Your task to perform on an android device: Search for lenovo thinkpad on costco.com, select the first entry, and add it to the cart. Image 0: 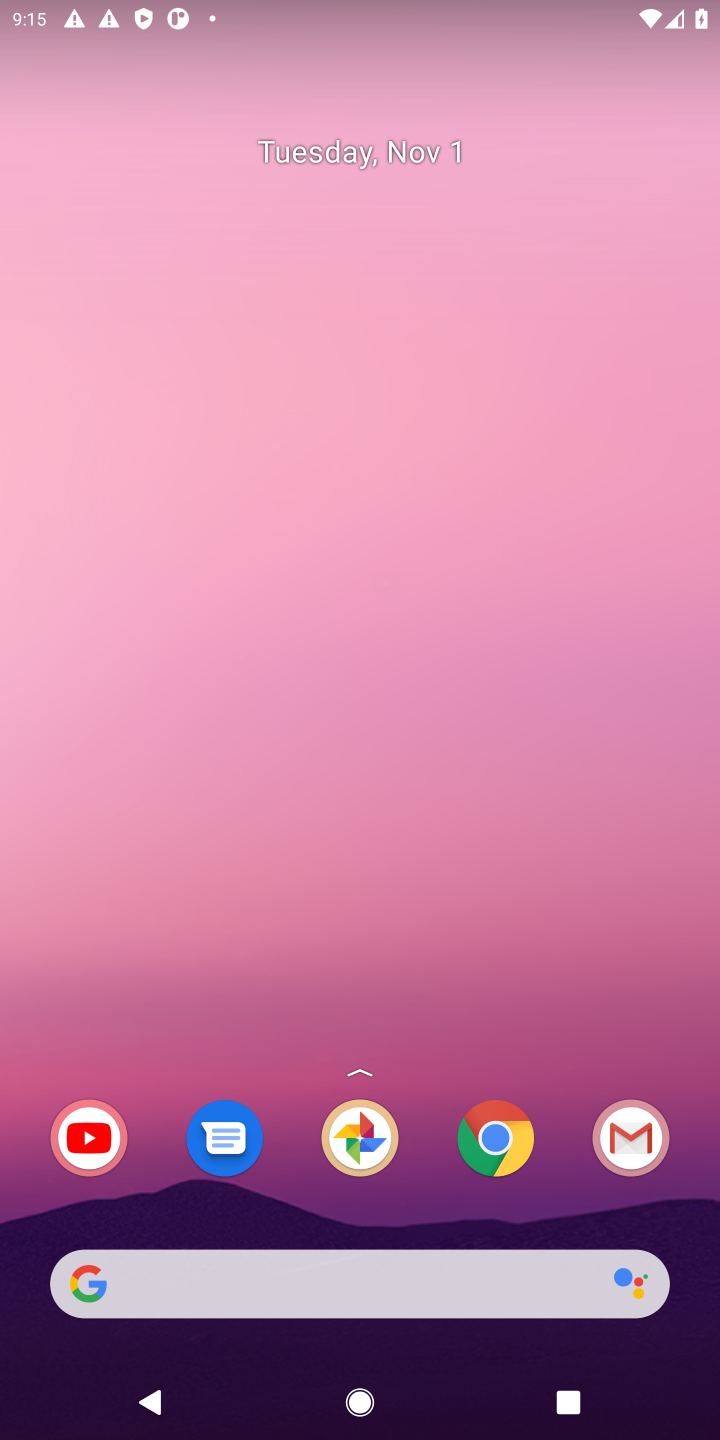
Step 0: click (497, 1140)
Your task to perform on an android device: Search for lenovo thinkpad on costco.com, select the first entry, and add it to the cart. Image 1: 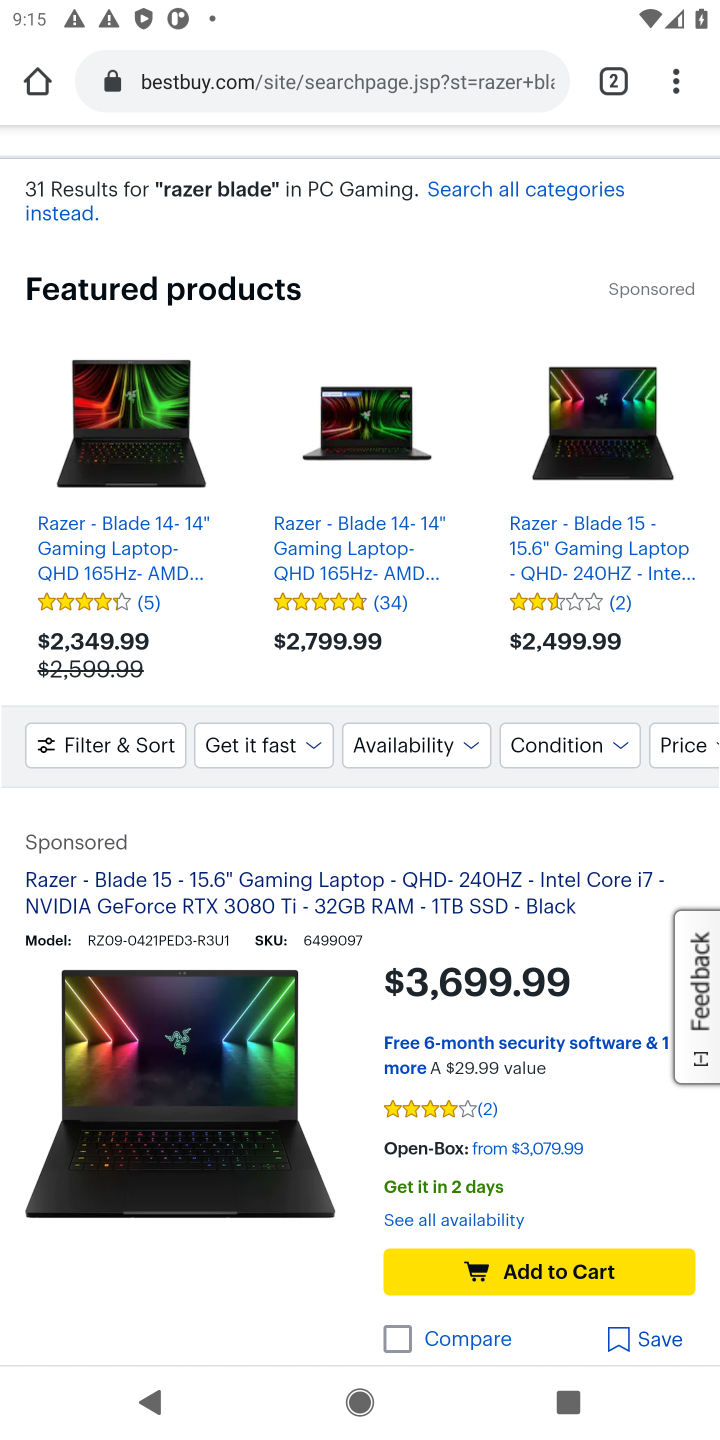
Step 1: click (679, 94)
Your task to perform on an android device: Search for lenovo thinkpad on costco.com, select the first entry, and add it to the cart. Image 2: 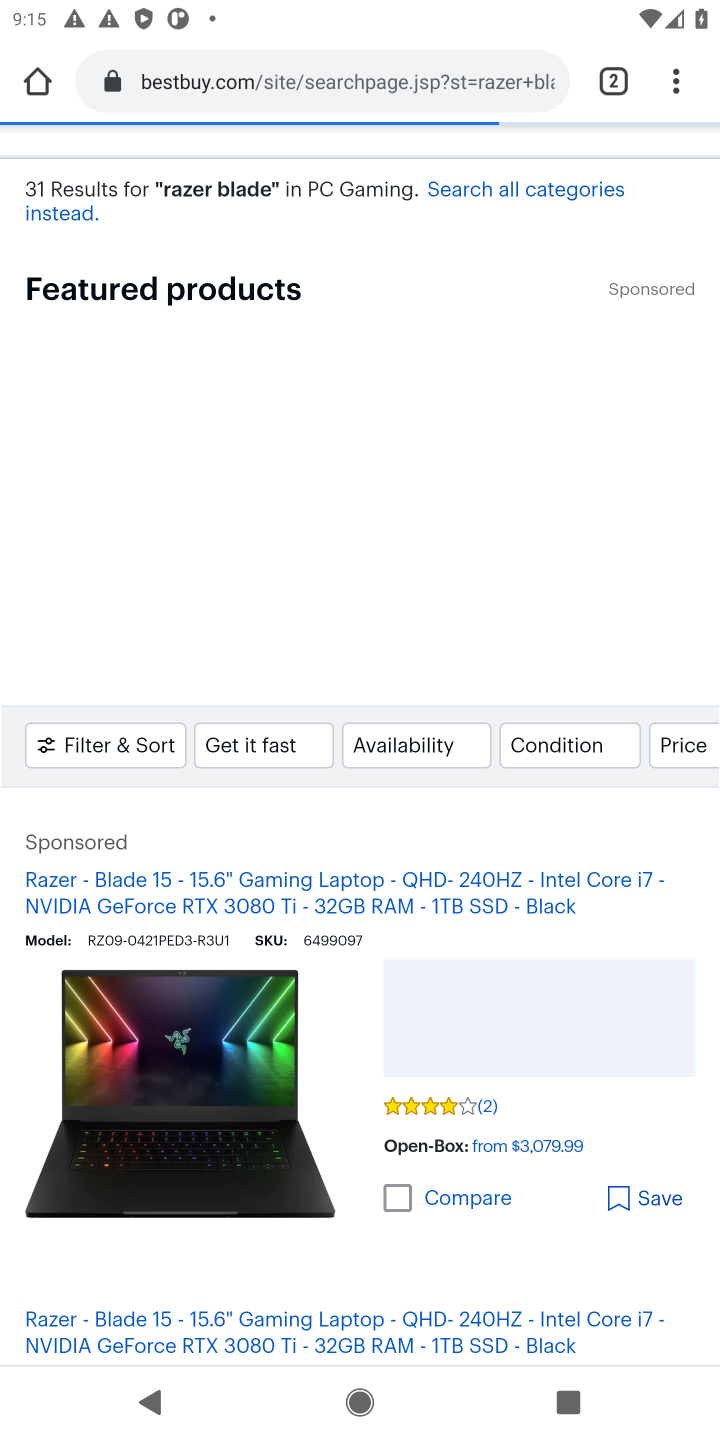
Step 2: drag from (675, 89) to (370, 174)
Your task to perform on an android device: Search for lenovo thinkpad on costco.com, select the first entry, and add it to the cart. Image 3: 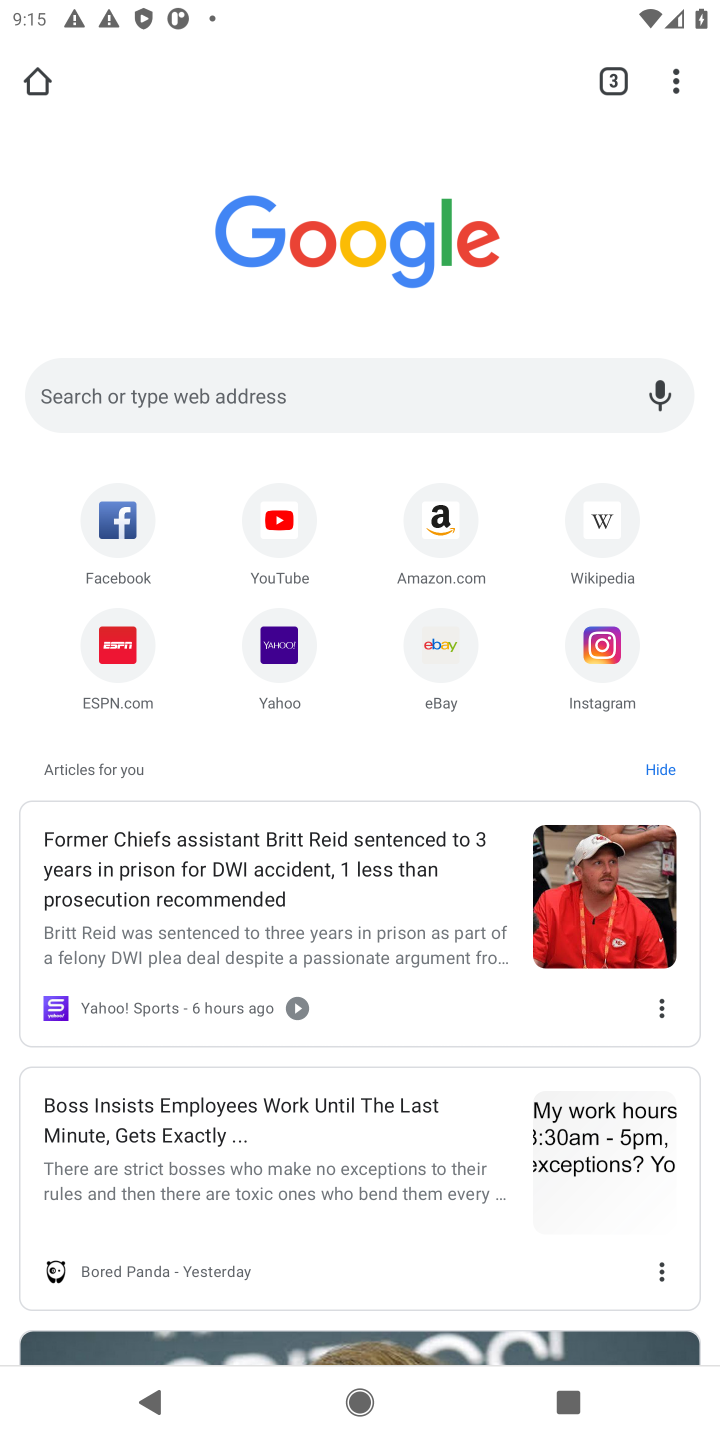
Step 3: click (381, 395)
Your task to perform on an android device: Search for lenovo thinkpad on costco.com, select the first entry, and add it to the cart. Image 4: 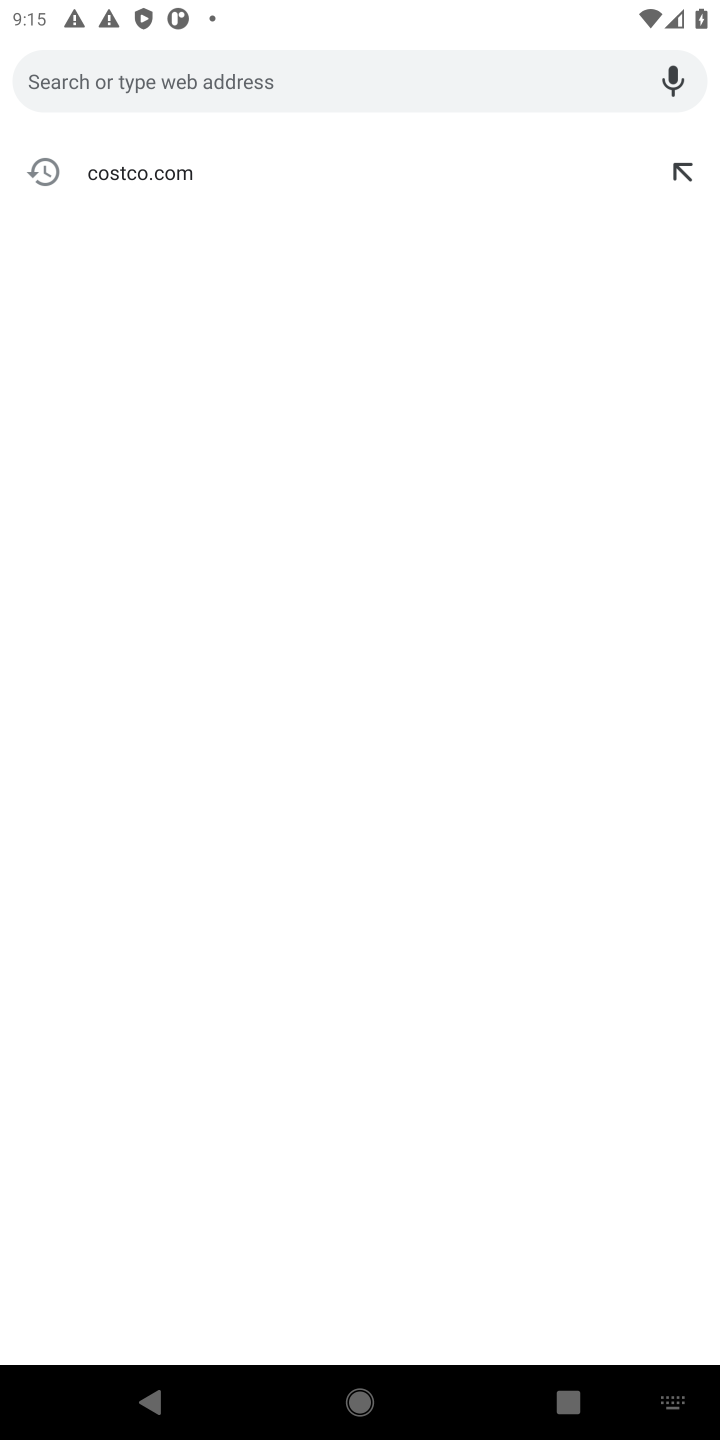
Step 4: type "costco.com"
Your task to perform on an android device: Search for lenovo thinkpad on costco.com, select the first entry, and add it to the cart. Image 5: 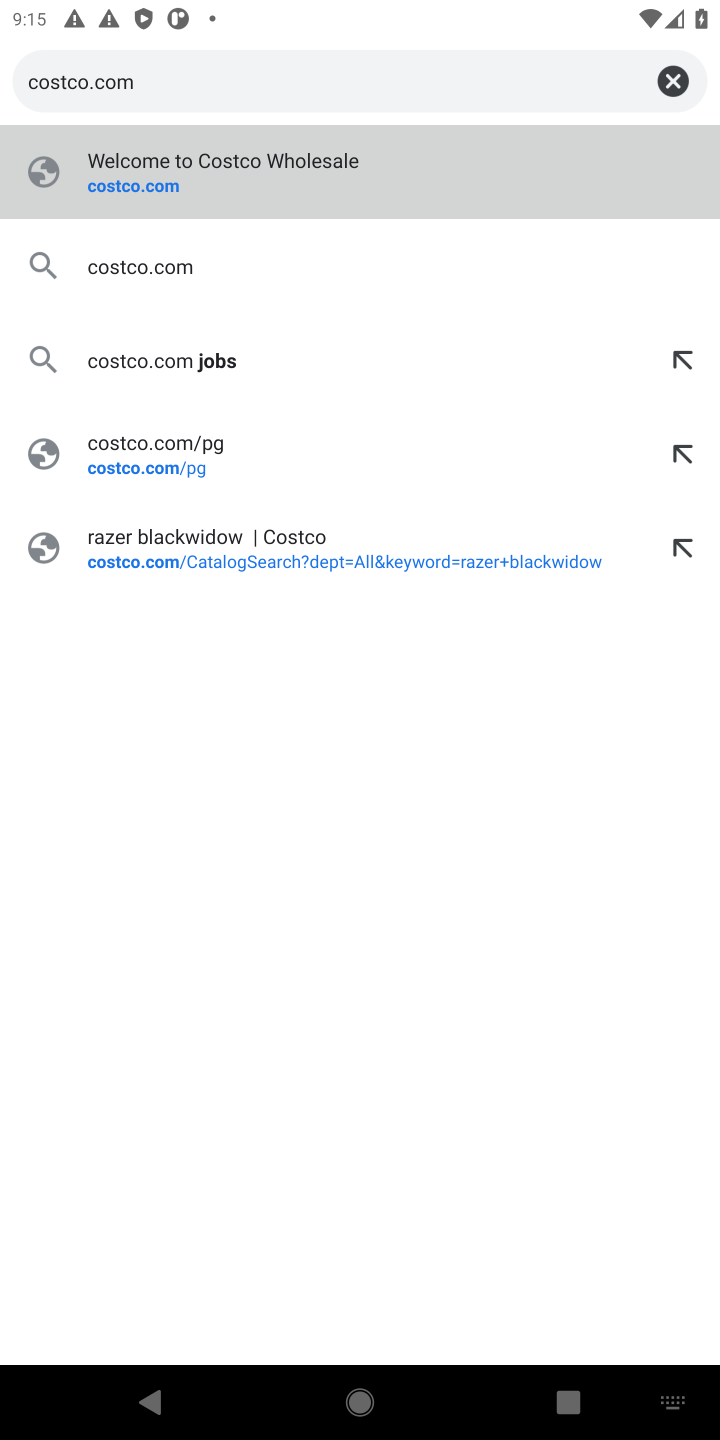
Step 5: click (175, 272)
Your task to perform on an android device: Search for lenovo thinkpad on costco.com, select the first entry, and add it to the cart. Image 6: 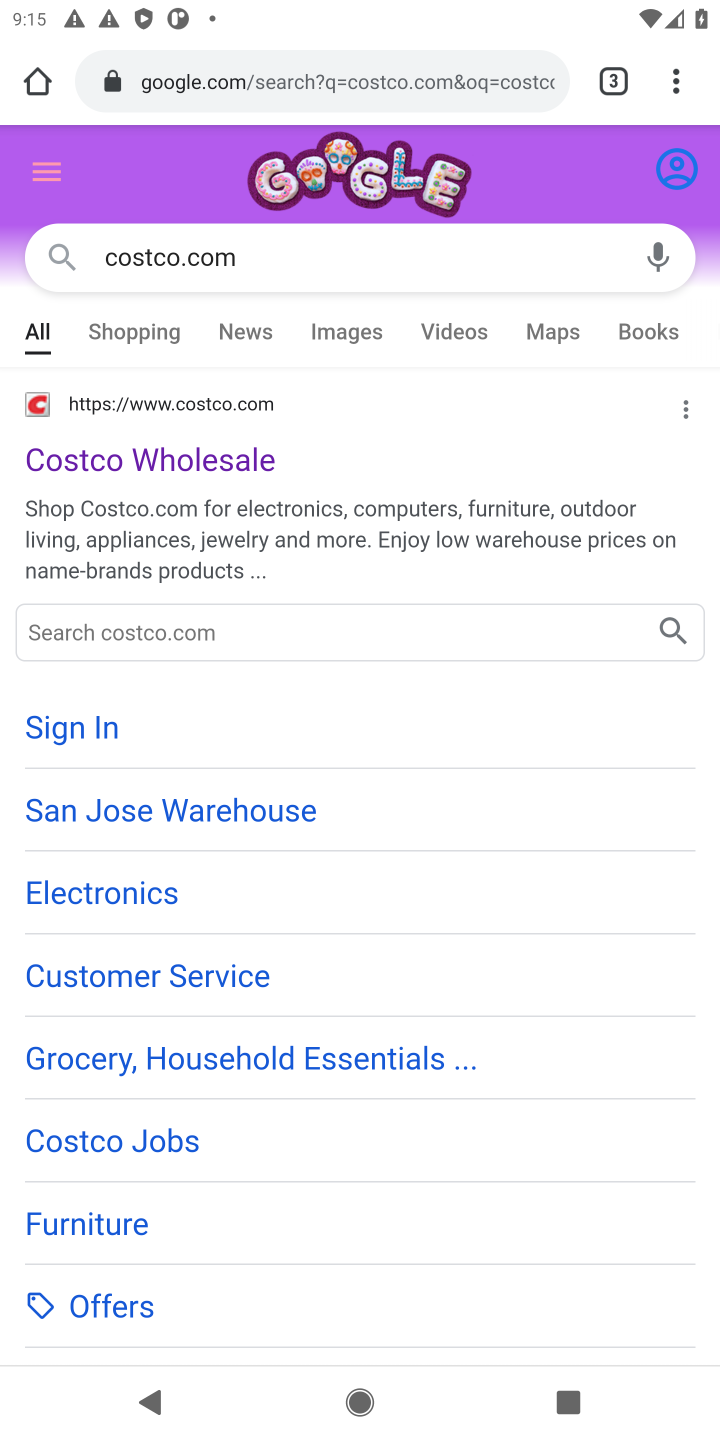
Step 6: click (201, 464)
Your task to perform on an android device: Search for lenovo thinkpad on costco.com, select the first entry, and add it to the cart. Image 7: 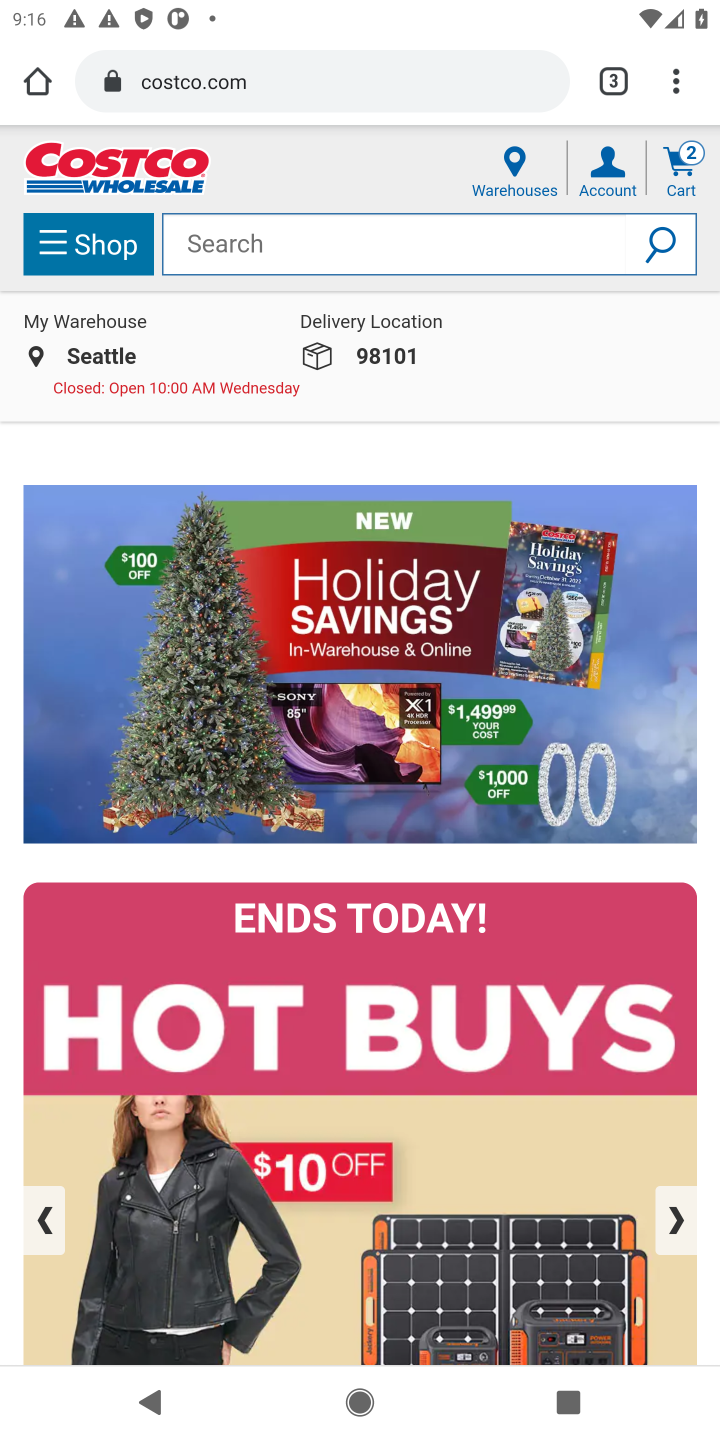
Step 7: click (304, 234)
Your task to perform on an android device: Search for lenovo thinkpad on costco.com, select the first entry, and add it to the cart. Image 8: 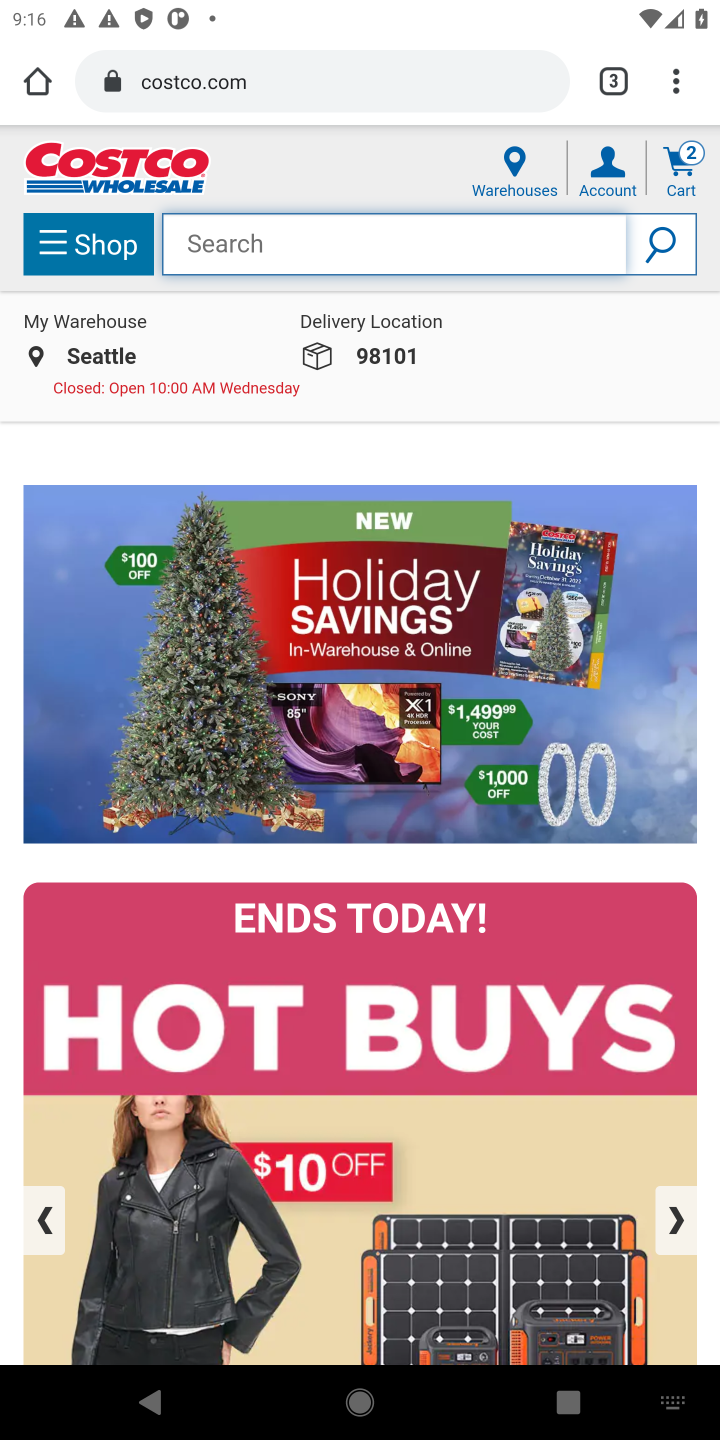
Step 8: type "lenovo thinkpad"
Your task to perform on an android device: Search for lenovo thinkpad on costco.com, select the first entry, and add it to the cart. Image 9: 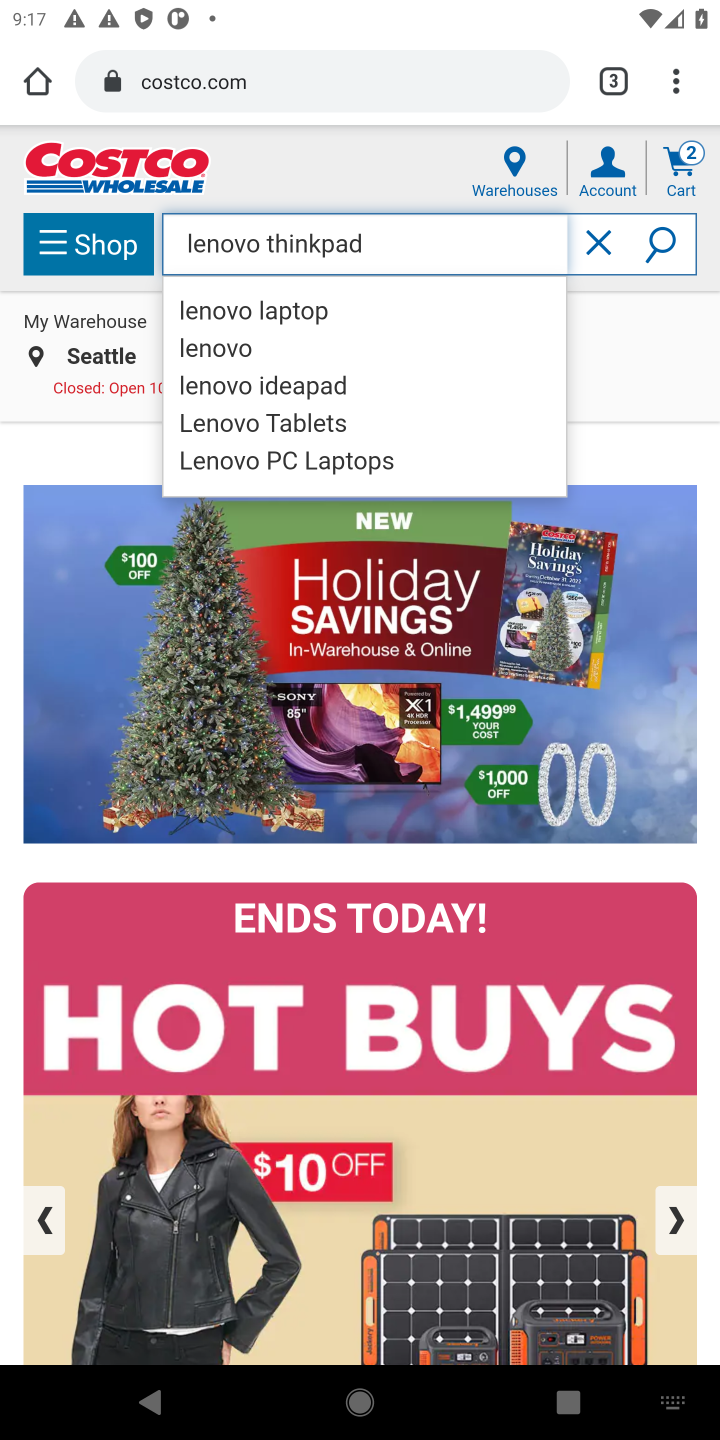
Step 9: click (654, 242)
Your task to perform on an android device: Search for lenovo thinkpad on costco.com, select the first entry, and add it to the cart. Image 10: 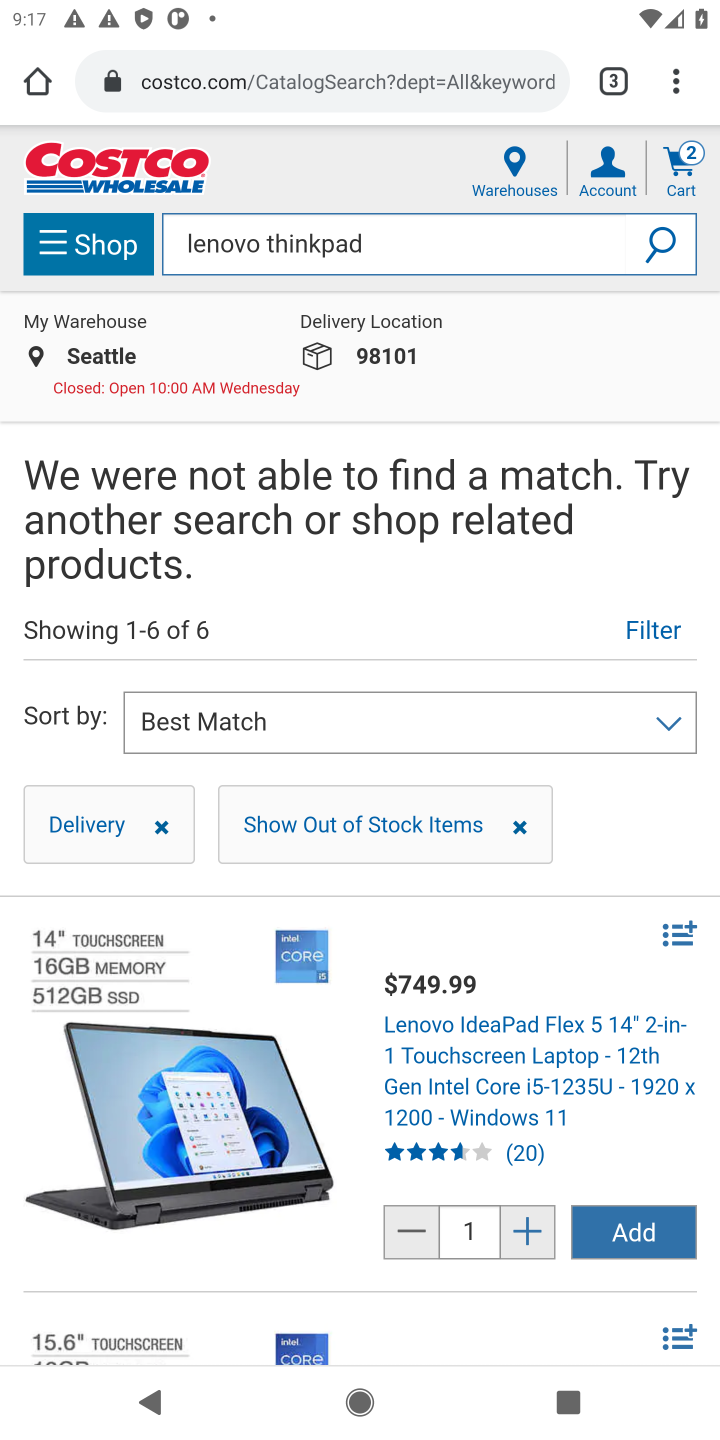
Step 10: click (616, 1234)
Your task to perform on an android device: Search for lenovo thinkpad on costco.com, select the first entry, and add it to the cart. Image 11: 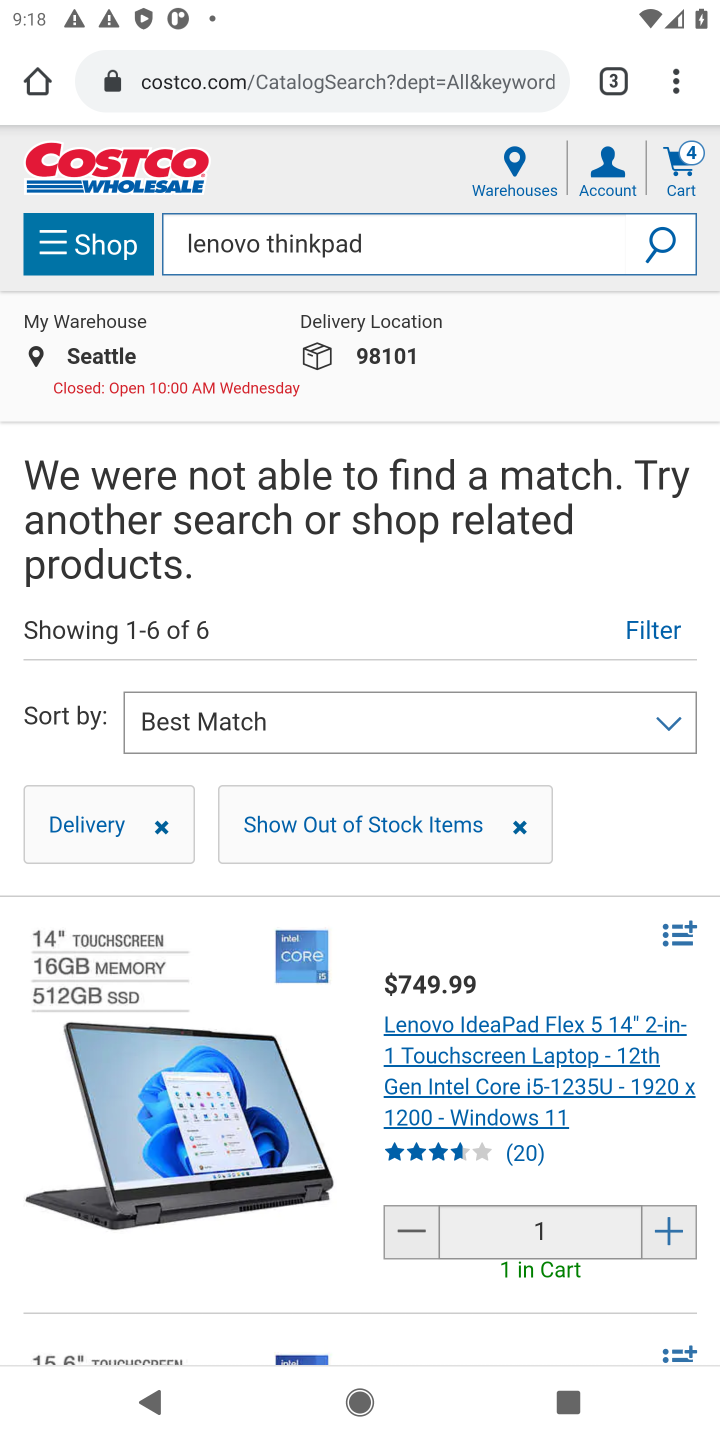
Step 11: task complete